Your task to perform on an android device: change text size in settings app Image 0: 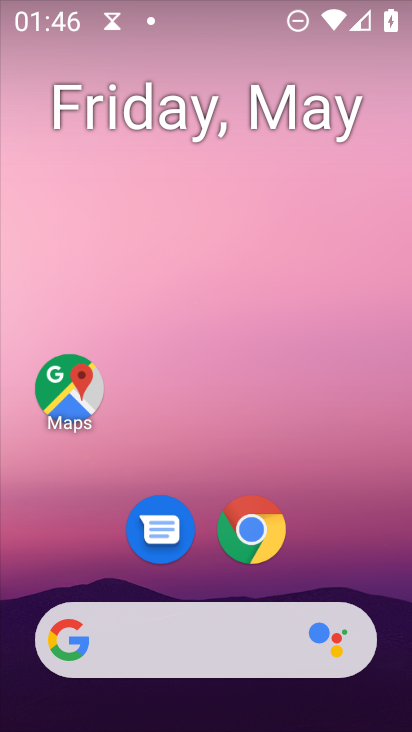
Step 0: drag from (332, 484) to (353, 269)
Your task to perform on an android device: change text size in settings app Image 1: 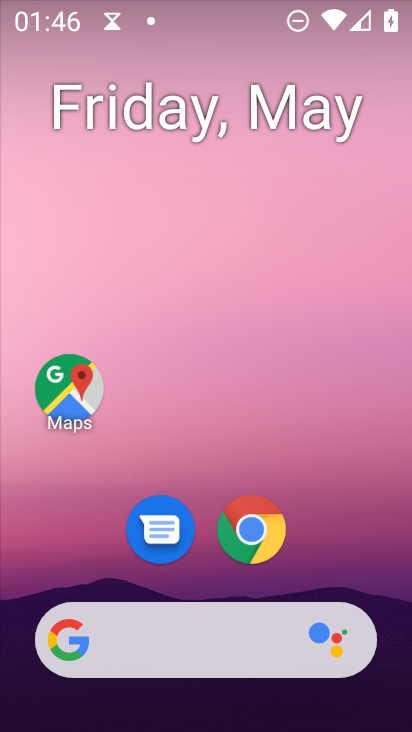
Step 1: drag from (338, 573) to (316, 145)
Your task to perform on an android device: change text size in settings app Image 2: 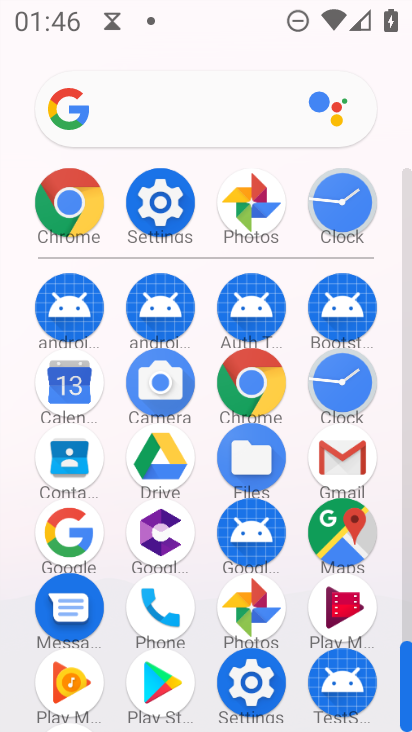
Step 2: click (148, 182)
Your task to perform on an android device: change text size in settings app Image 3: 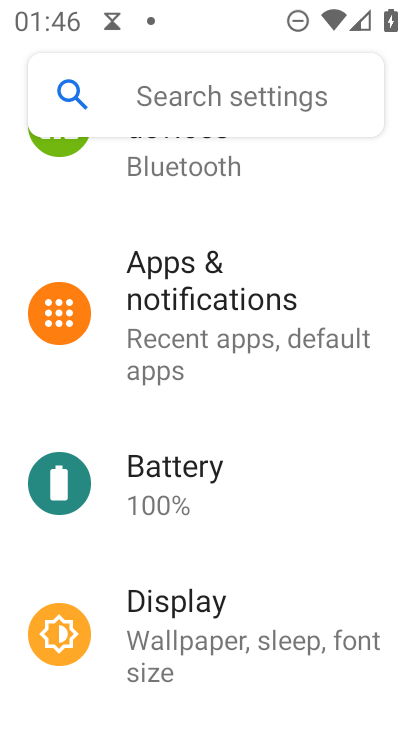
Step 3: drag from (267, 663) to (273, 135)
Your task to perform on an android device: change text size in settings app Image 4: 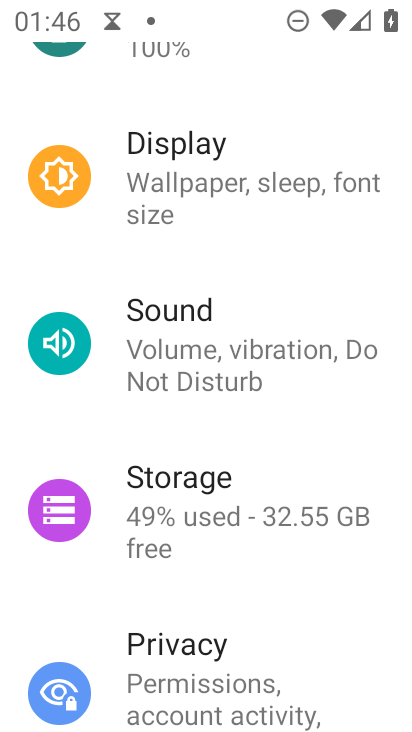
Step 4: drag from (228, 612) to (249, 132)
Your task to perform on an android device: change text size in settings app Image 5: 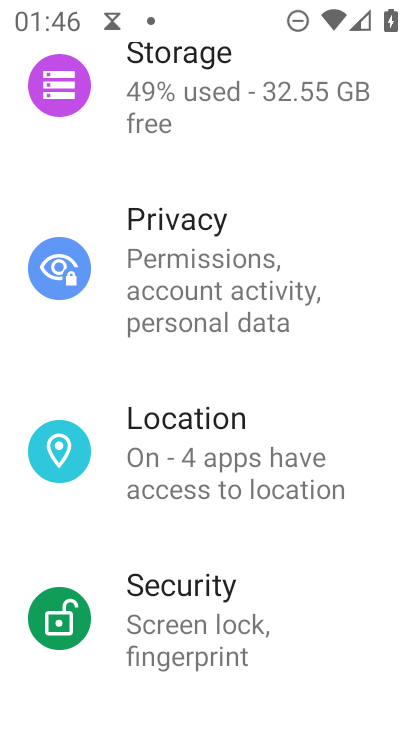
Step 5: drag from (260, 639) to (284, 100)
Your task to perform on an android device: change text size in settings app Image 6: 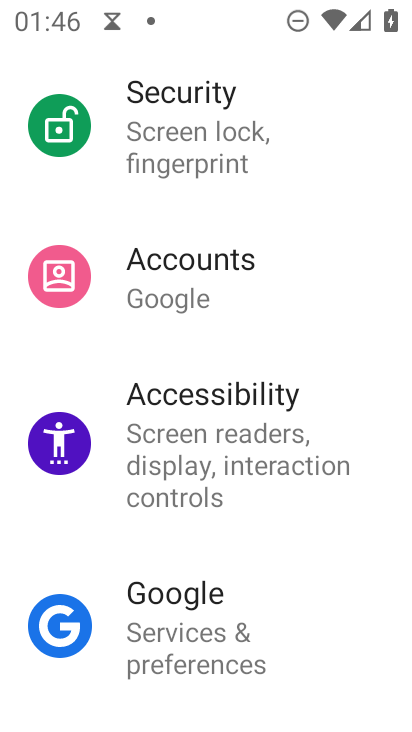
Step 6: drag from (239, 623) to (252, 176)
Your task to perform on an android device: change text size in settings app Image 7: 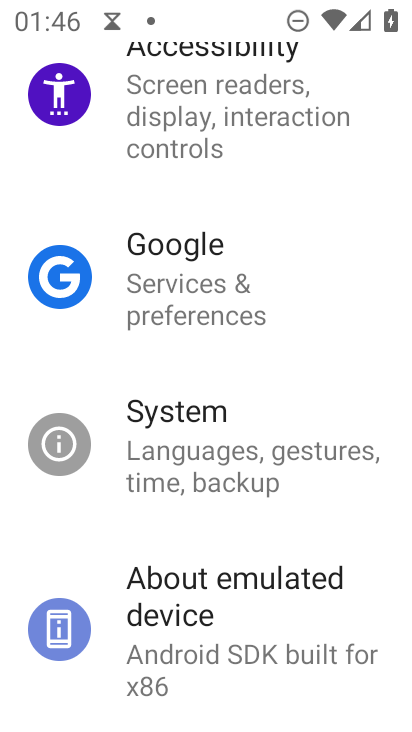
Step 7: click (212, 458)
Your task to perform on an android device: change text size in settings app Image 8: 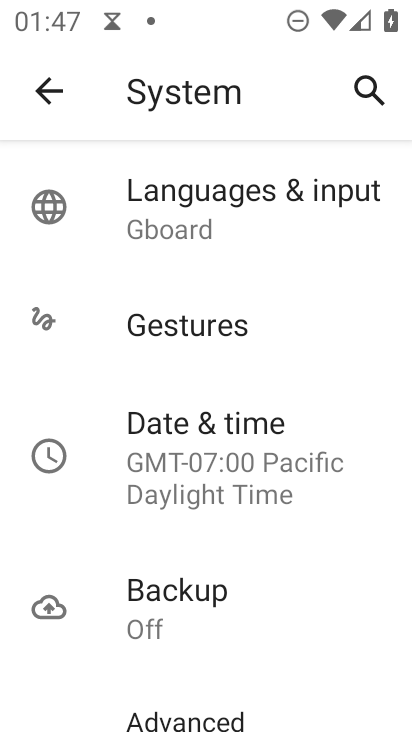
Step 8: click (29, 94)
Your task to perform on an android device: change text size in settings app Image 9: 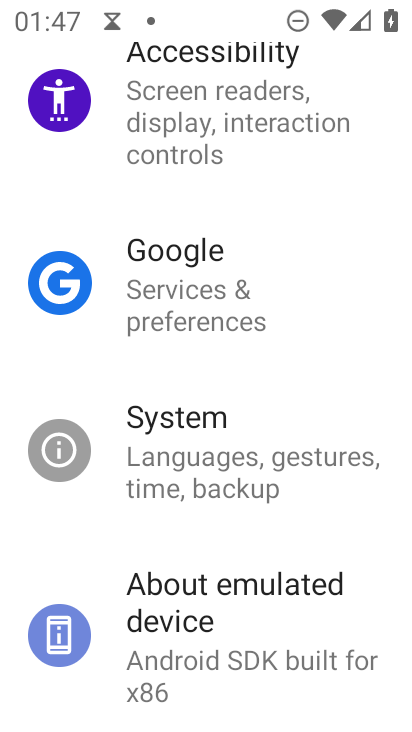
Step 9: click (182, 493)
Your task to perform on an android device: change text size in settings app Image 10: 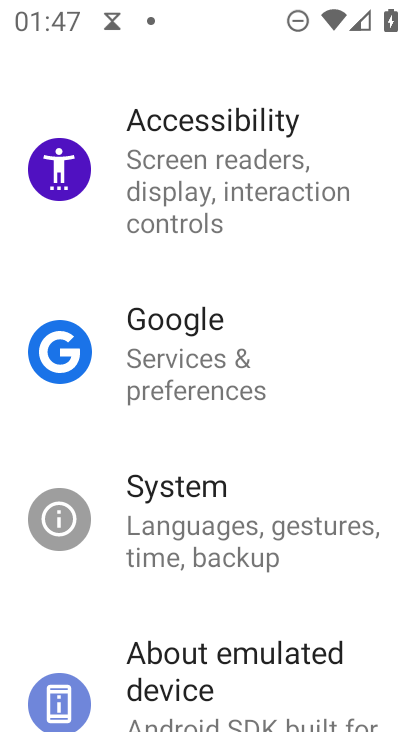
Step 10: click (218, 201)
Your task to perform on an android device: change text size in settings app Image 11: 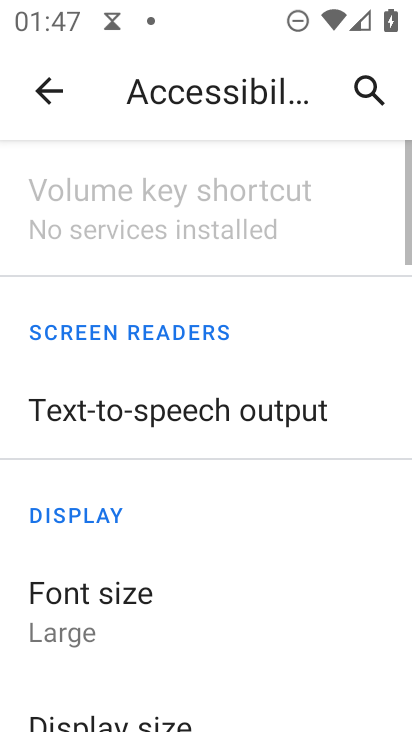
Step 11: click (88, 602)
Your task to perform on an android device: change text size in settings app Image 12: 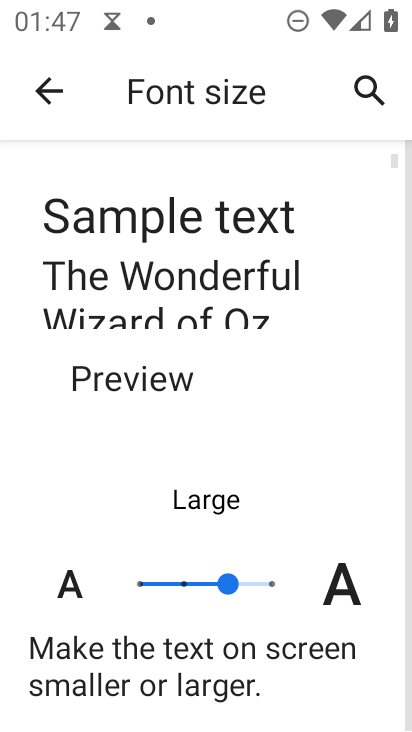
Step 12: click (155, 585)
Your task to perform on an android device: change text size in settings app Image 13: 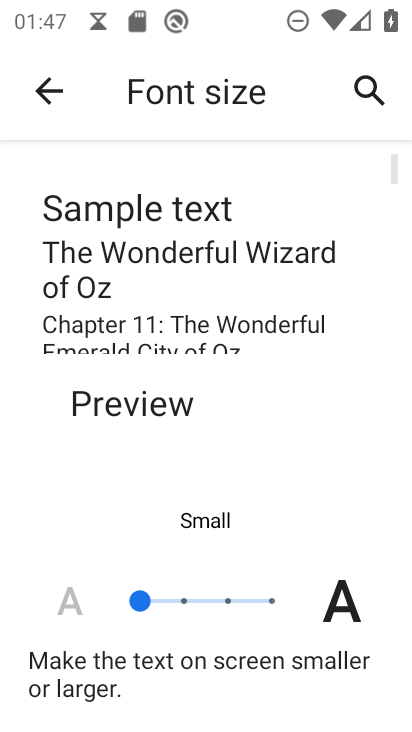
Step 13: click (172, 611)
Your task to perform on an android device: change text size in settings app Image 14: 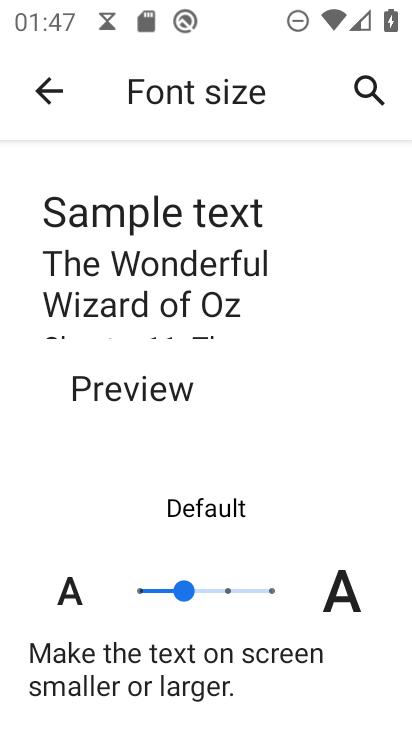
Step 14: task complete